Your task to perform on an android device: Open Chrome and go to the settings page Image 0: 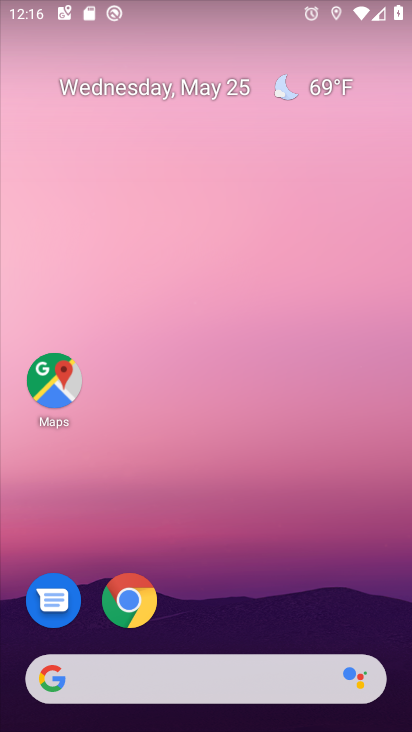
Step 0: drag from (375, 617) to (349, 165)
Your task to perform on an android device: Open Chrome and go to the settings page Image 1: 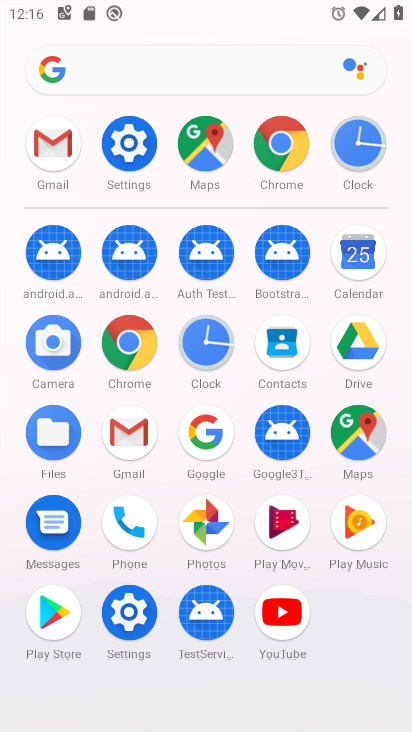
Step 1: click (144, 355)
Your task to perform on an android device: Open Chrome and go to the settings page Image 2: 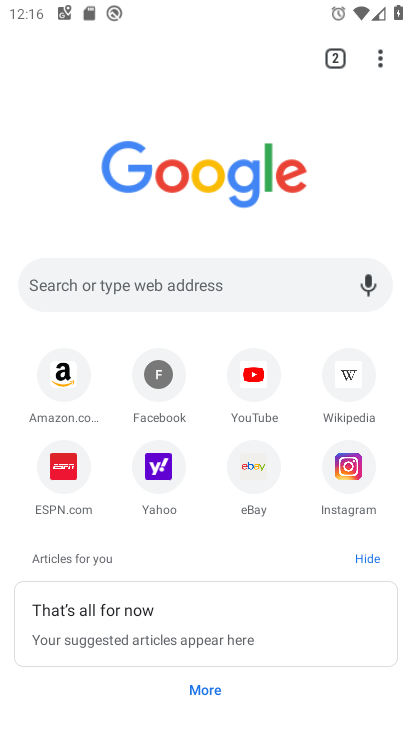
Step 2: click (379, 64)
Your task to perform on an android device: Open Chrome and go to the settings page Image 3: 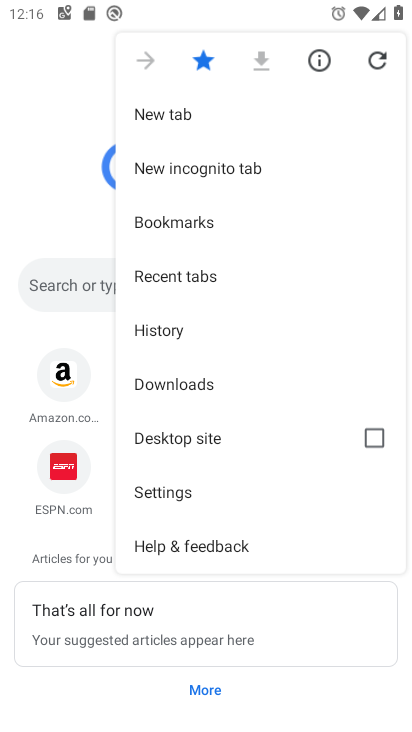
Step 3: drag from (286, 443) to (304, 284)
Your task to perform on an android device: Open Chrome and go to the settings page Image 4: 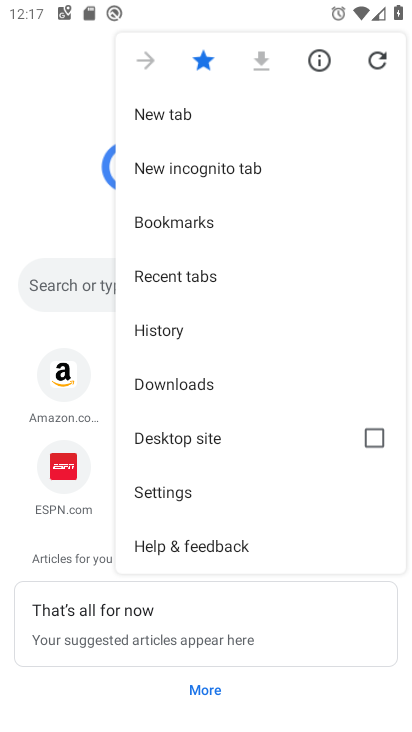
Step 4: click (198, 494)
Your task to perform on an android device: Open Chrome and go to the settings page Image 5: 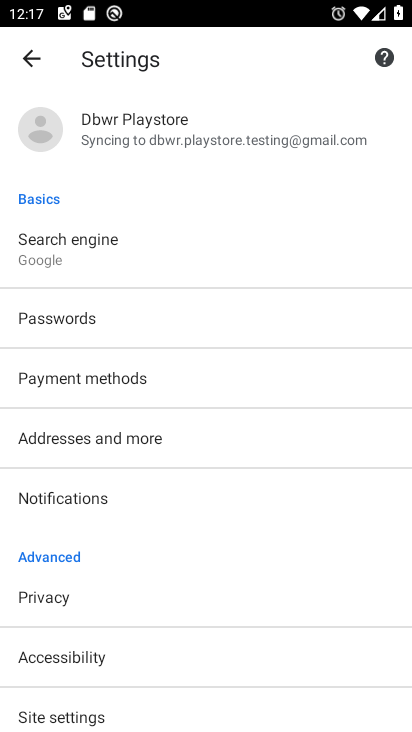
Step 5: task complete